Your task to perform on an android device: check the backup settings in the google photos Image 0: 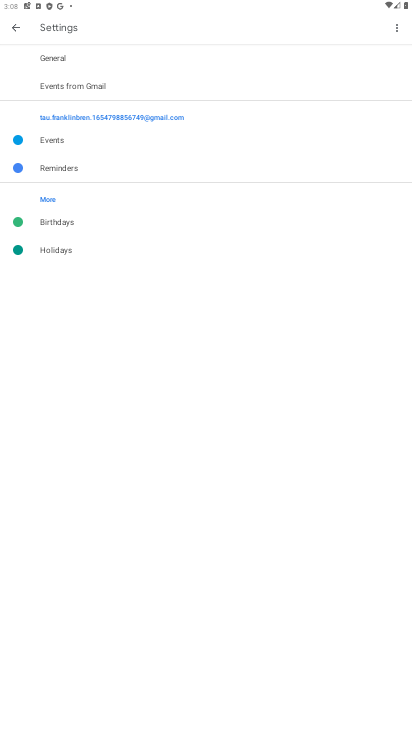
Step 0: press home button
Your task to perform on an android device: check the backup settings in the google photos Image 1: 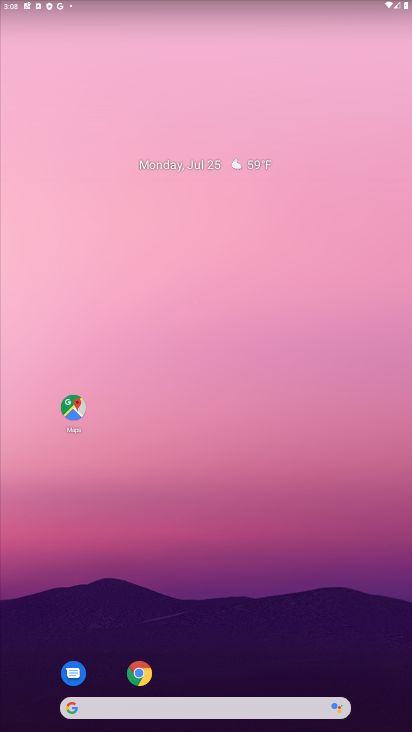
Step 1: drag from (230, 671) to (274, 2)
Your task to perform on an android device: check the backup settings in the google photos Image 2: 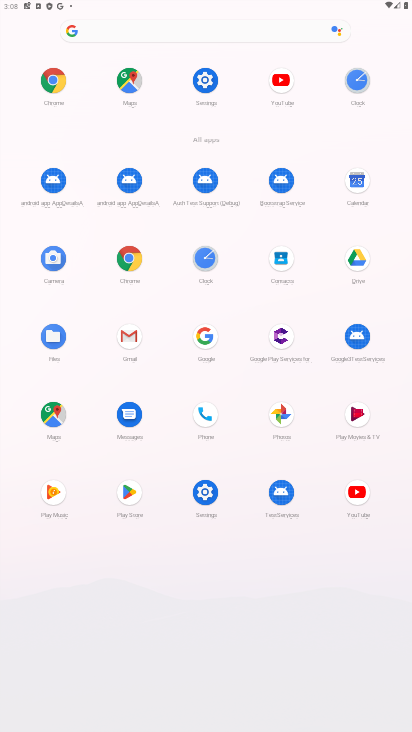
Step 2: click (289, 412)
Your task to perform on an android device: check the backup settings in the google photos Image 3: 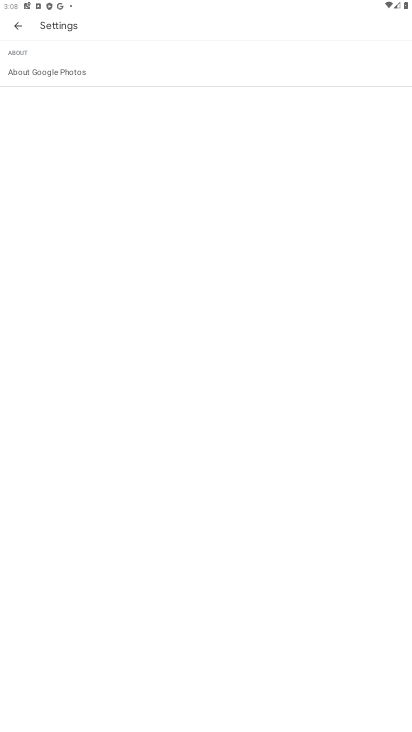
Step 3: click (21, 26)
Your task to perform on an android device: check the backup settings in the google photos Image 4: 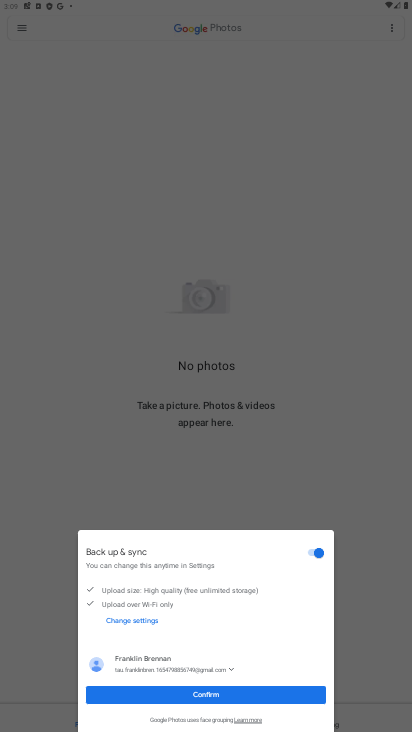
Step 4: click (209, 696)
Your task to perform on an android device: check the backup settings in the google photos Image 5: 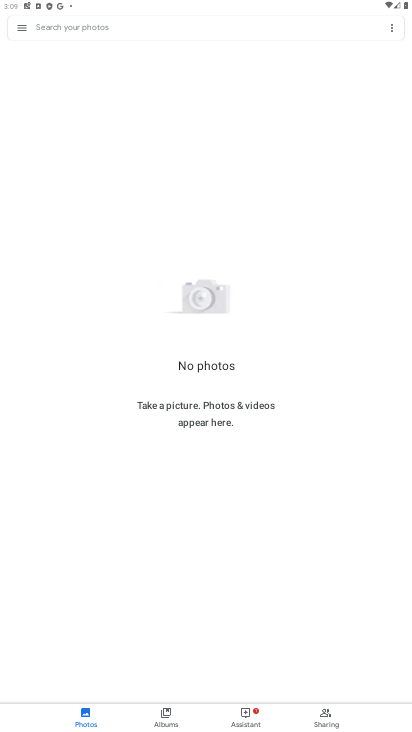
Step 5: click (237, 707)
Your task to perform on an android device: check the backup settings in the google photos Image 6: 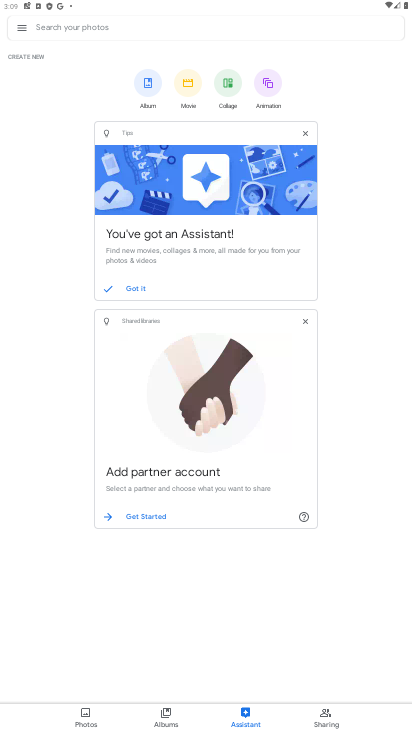
Step 6: click (4, 14)
Your task to perform on an android device: check the backup settings in the google photos Image 7: 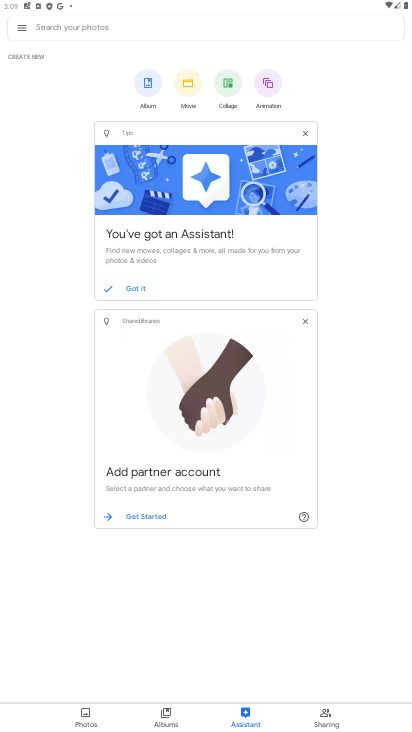
Step 7: click (17, 29)
Your task to perform on an android device: check the backup settings in the google photos Image 8: 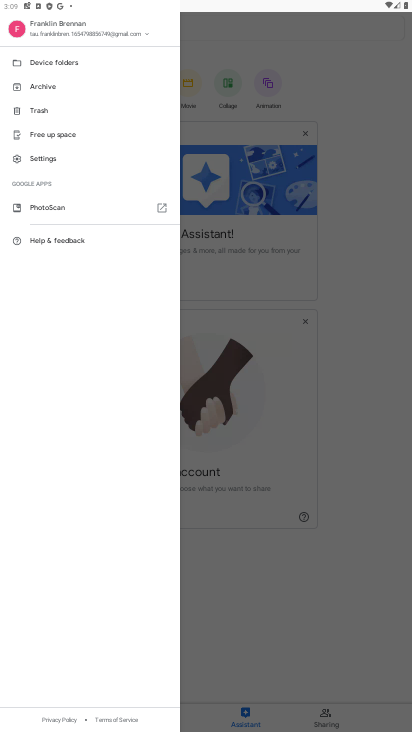
Step 8: click (17, 29)
Your task to perform on an android device: check the backup settings in the google photos Image 9: 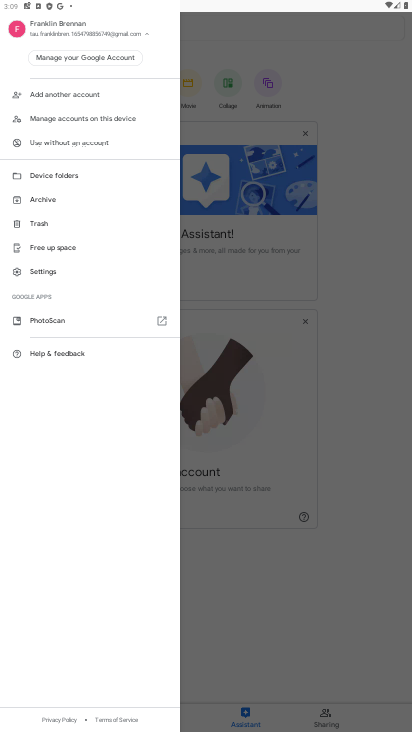
Step 9: click (42, 279)
Your task to perform on an android device: check the backup settings in the google photos Image 10: 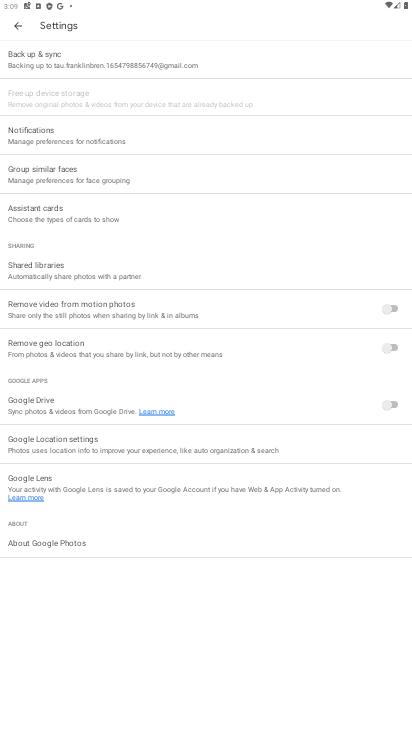
Step 10: click (42, 279)
Your task to perform on an android device: check the backup settings in the google photos Image 11: 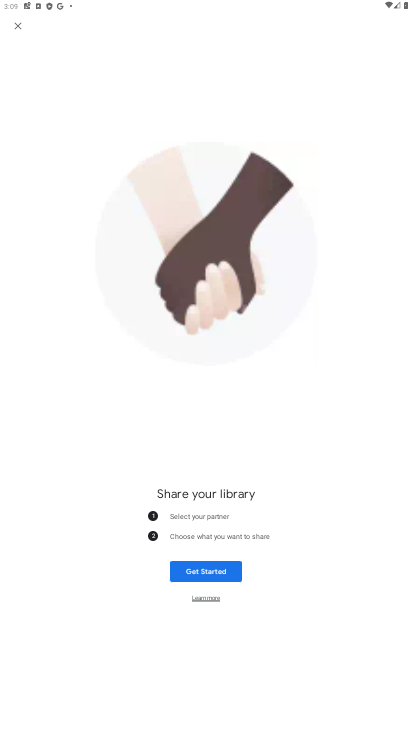
Step 11: task complete